Your task to perform on an android device: Add "razer thresher" to the cart on newegg Image 0: 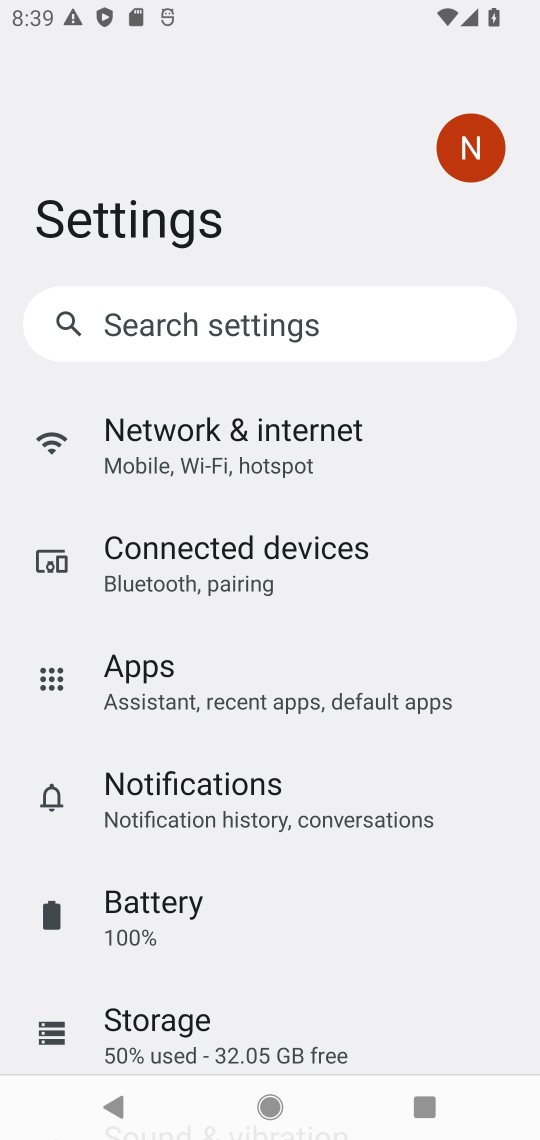
Step 0: press home button
Your task to perform on an android device: Add "razer thresher" to the cart on newegg Image 1: 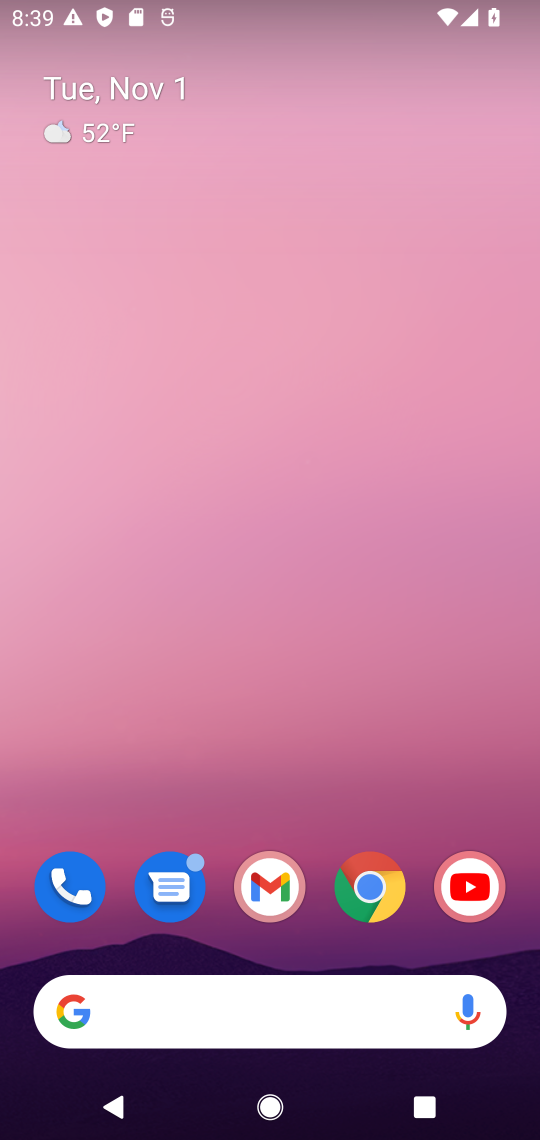
Step 1: drag from (193, 938) to (196, 217)
Your task to perform on an android device: Add "razer thresher" to the cart on newegg Image 2: 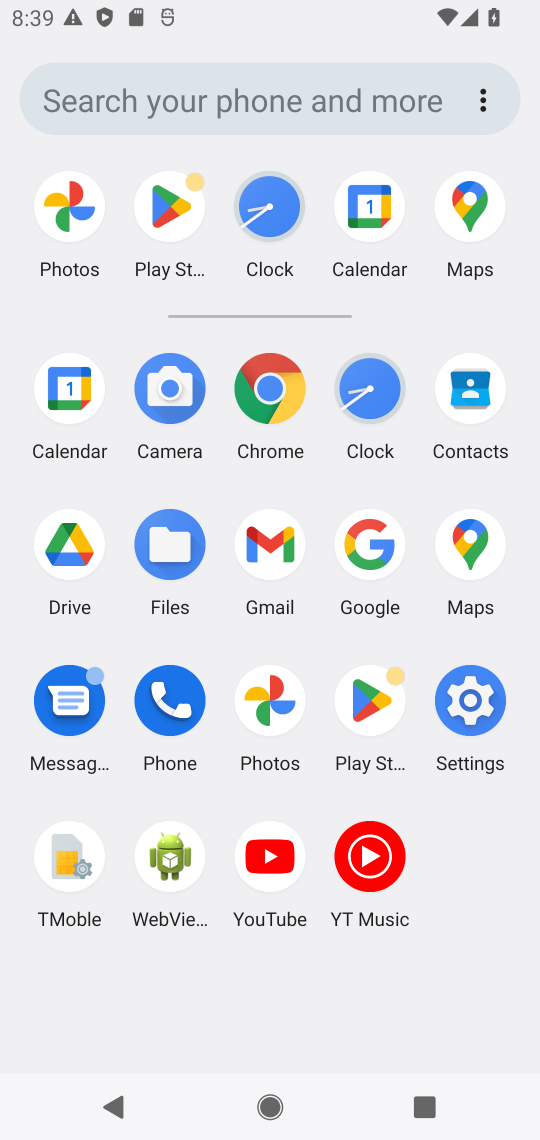
Step 2: click (356, 530)
Your task to perform on an android device: Add "razer thresher" to the cart on newegg Image 3: 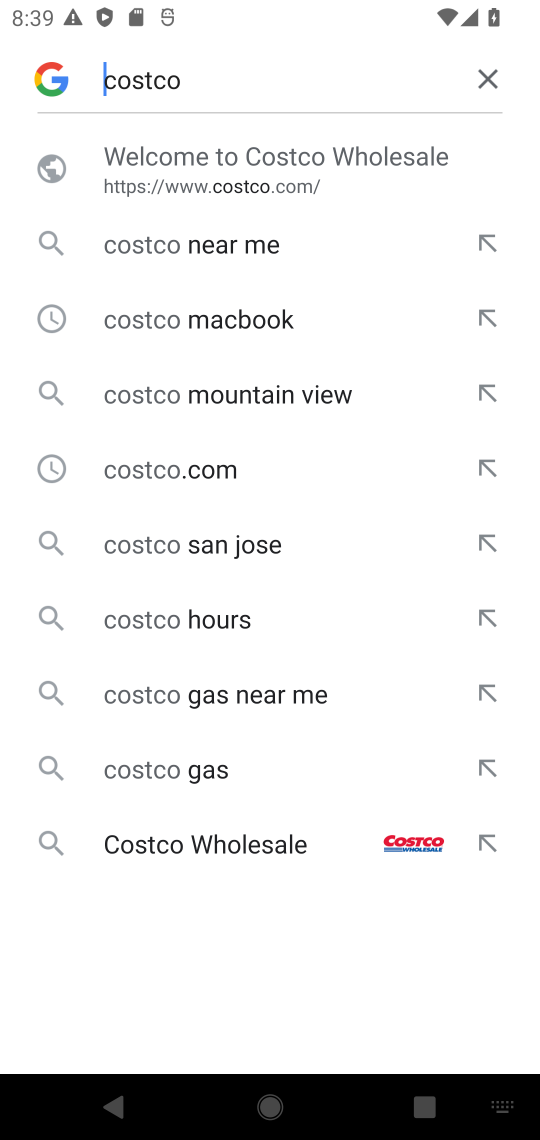
Step 3: click (486, 100)
Your task to perform on an android device: Add "razer thresher" to the cart on newegg Image 4: 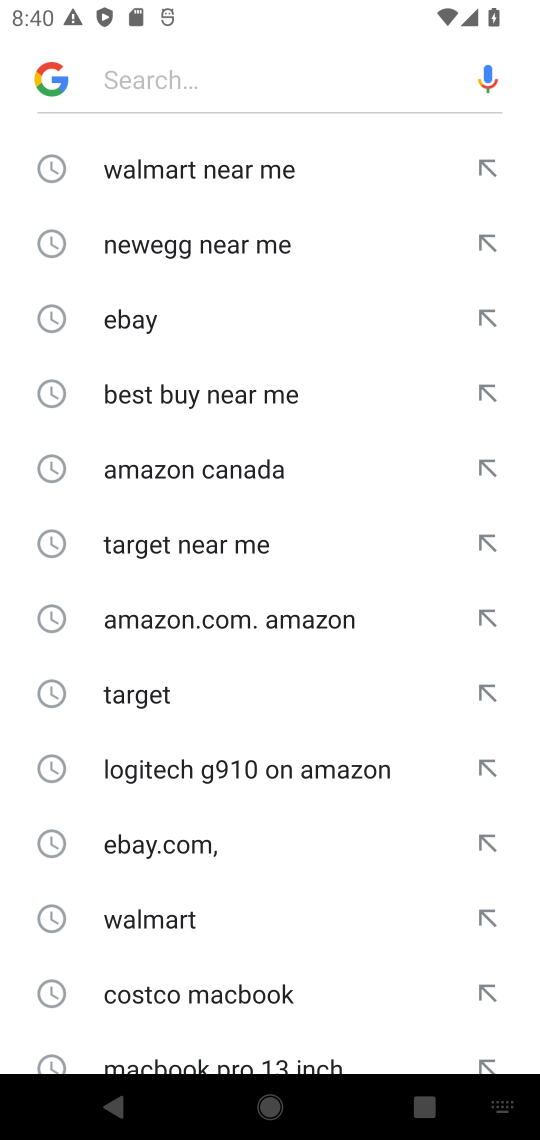
Step 4: click (215, 73)
Your task to perform on an android device: Add "razer thresher" to the cart on newegg Image 5: 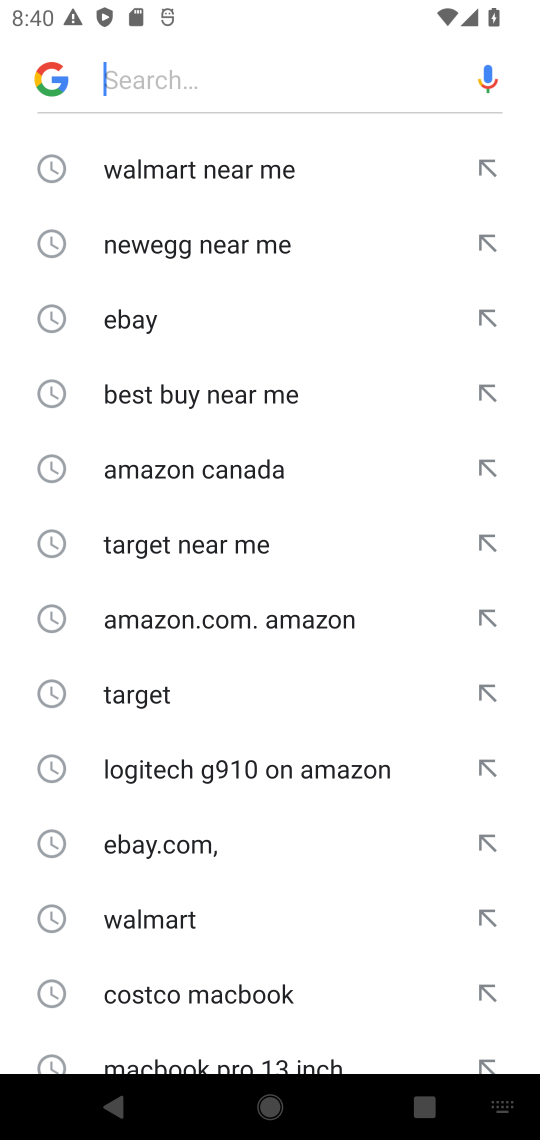
Step 5: type "newegg "
Your task to perform on an android device: Add "razer thresher" to the cart on newegg Image 6: 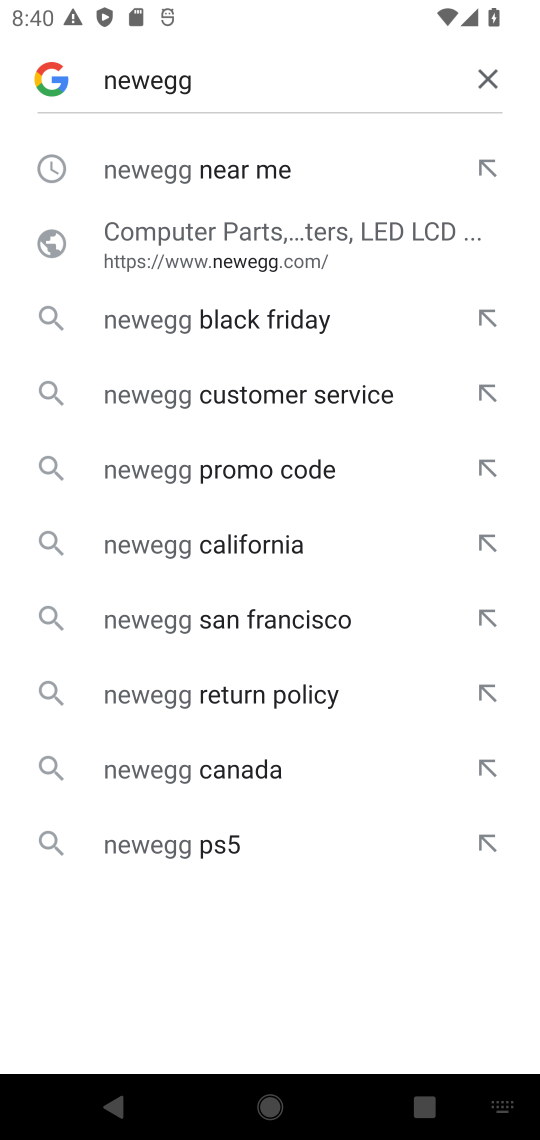
Step 6: click (211, 166)
Your task to perform on an android device: Add "razer thresher" to the cart on newegg Image 7: 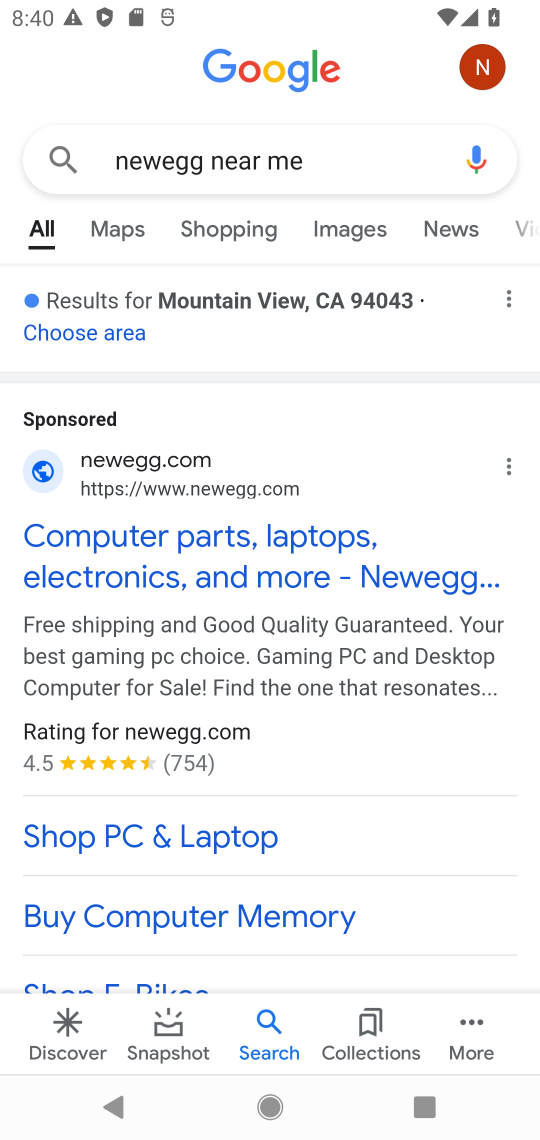
Step 7: drag from (235, 939) to (379, 465)
Your task to perform on an android device: Add "razer thresher" to the cart on newegg Image 8: 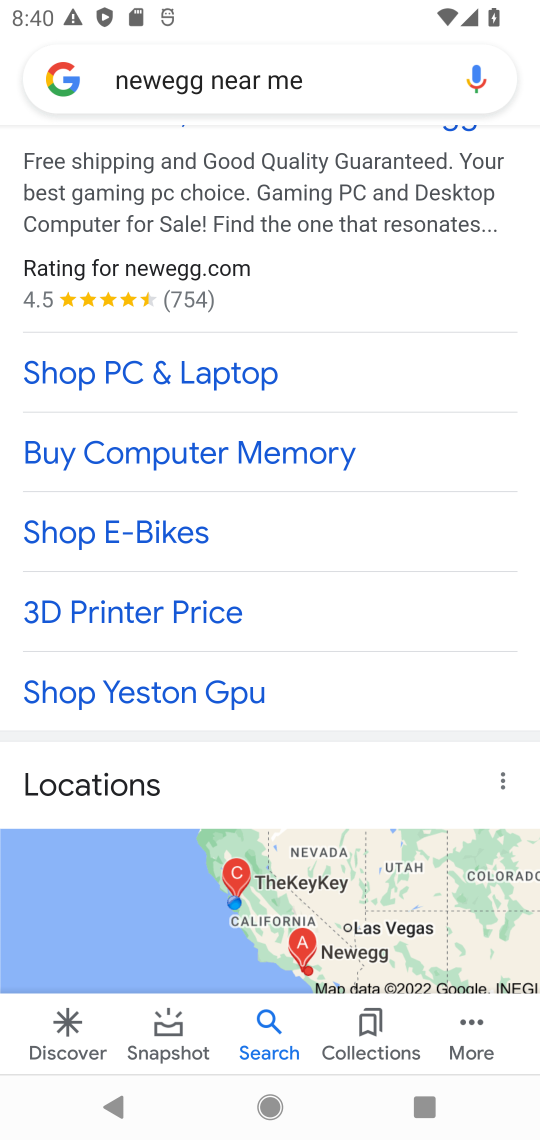
Step 8: drag from (218, 873) to (188, 113)
Your task to perform on an android device: Add "razer thresher" to the cart on newegg Image 9: 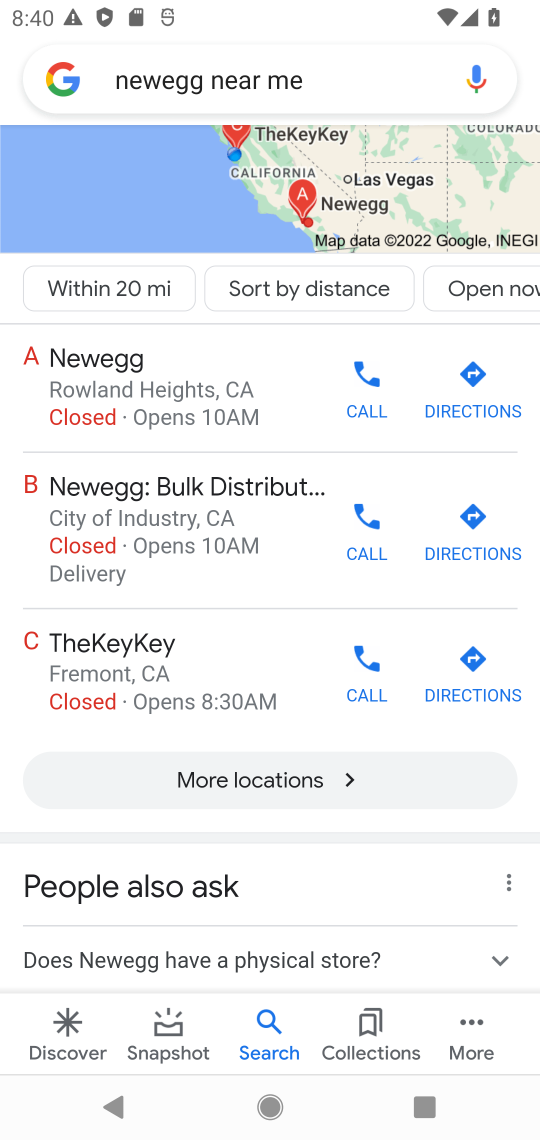
Step 9: drag from (151, 756) to (170, 313)
Your task to perform on an android device: Add "razer thresher" to the cart on newegg Image 10: 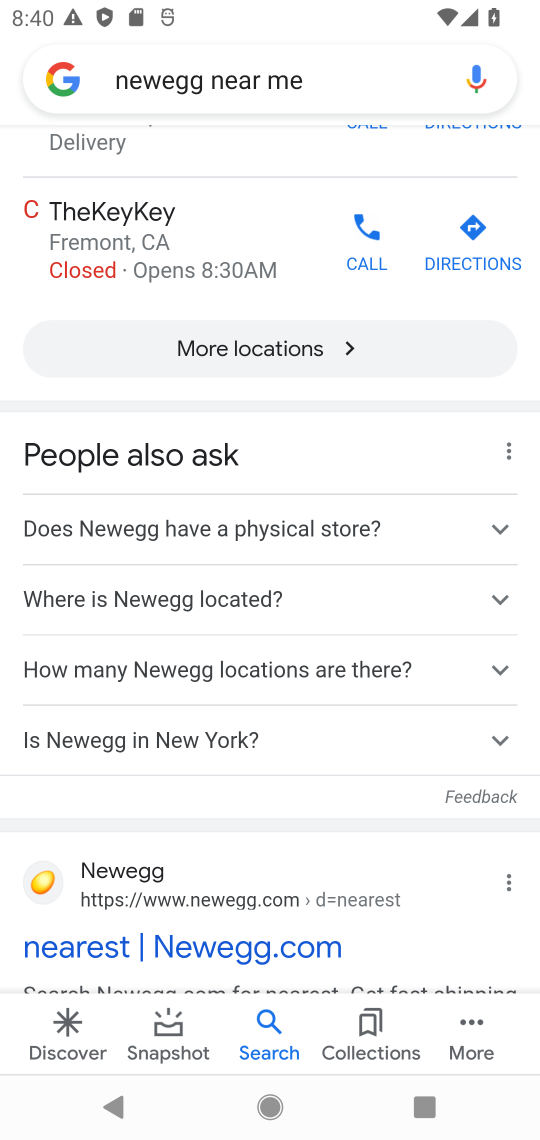
Step 10: click (32, 882)
Your task to perform on an android device: Add "razer thresher" to the cart on newegg Image 11: 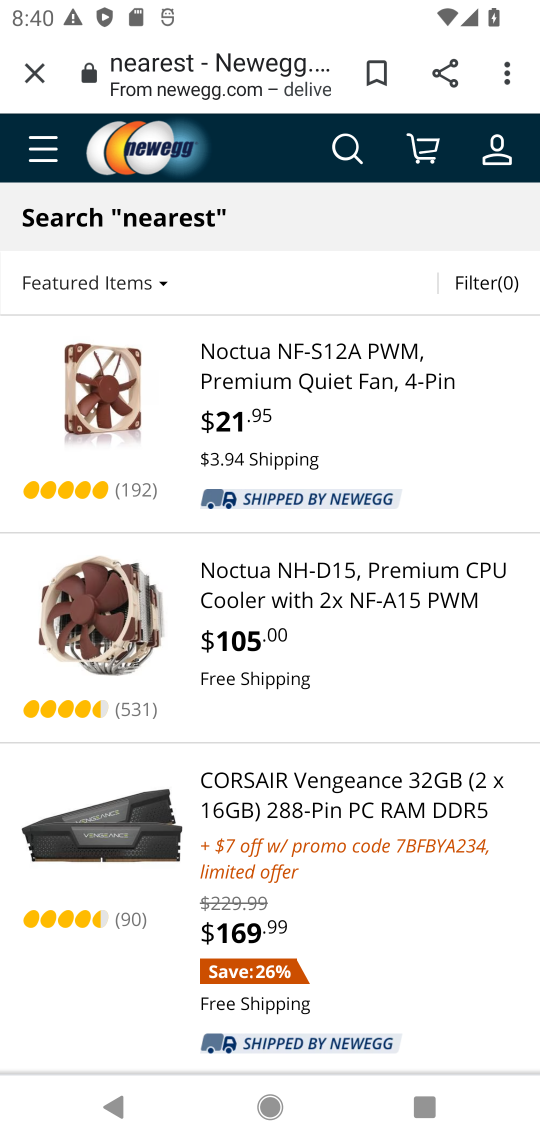
Step 11: click (352, 150)
Your task to perform on an android device: Add "razer thresher" to the cart on newegg Image 12: 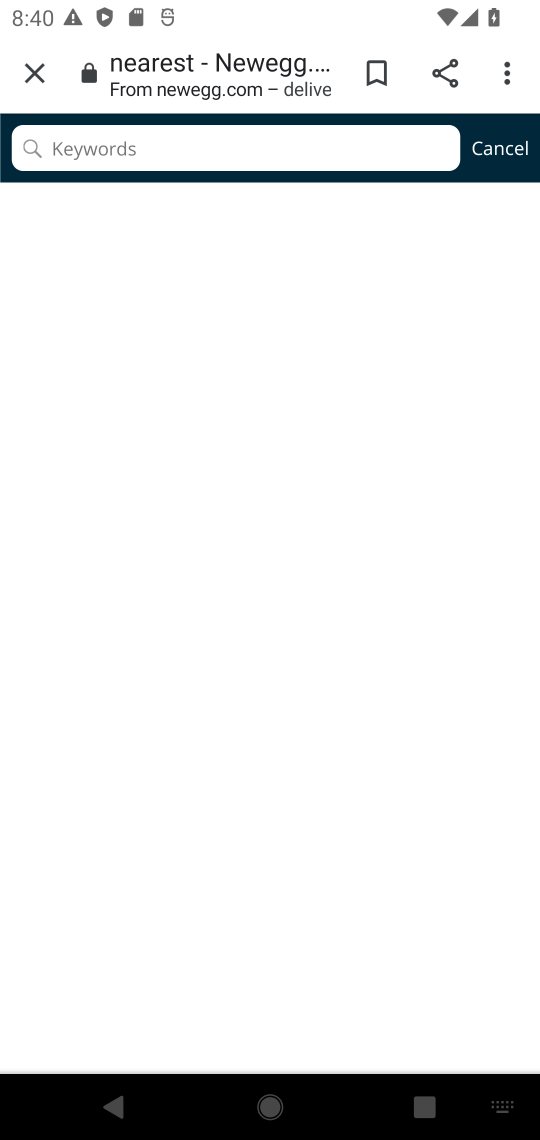
Step 12: click (195, 144)
Your task to perform on an android device: Add "razer thresher" to the cart on newegg Image 13: 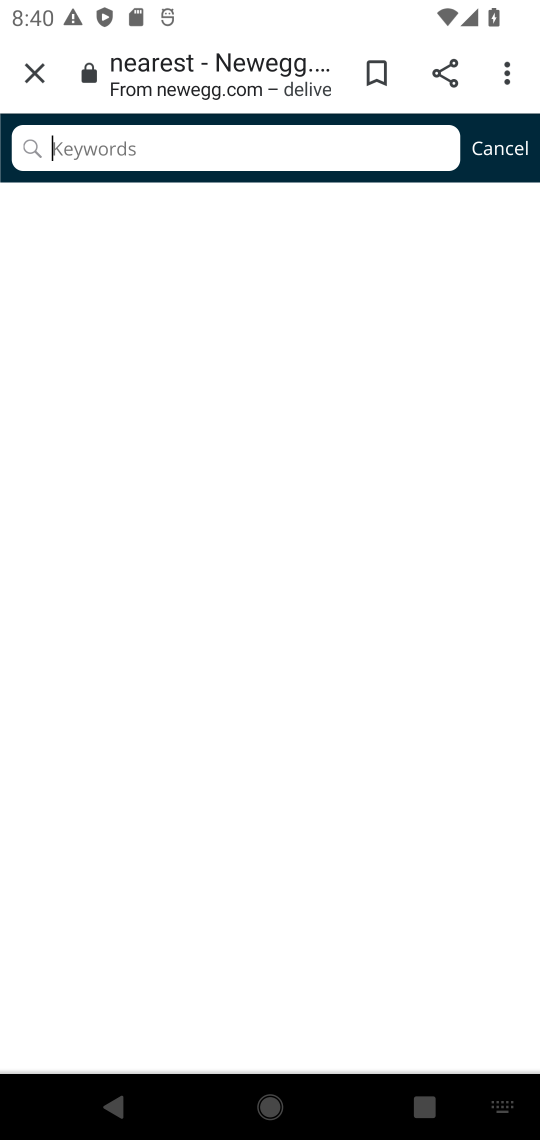
Step 13: type "razer thresher" "
Your task to perform on an android device: Add "razer thresher" to the cart on newegg Image 14: 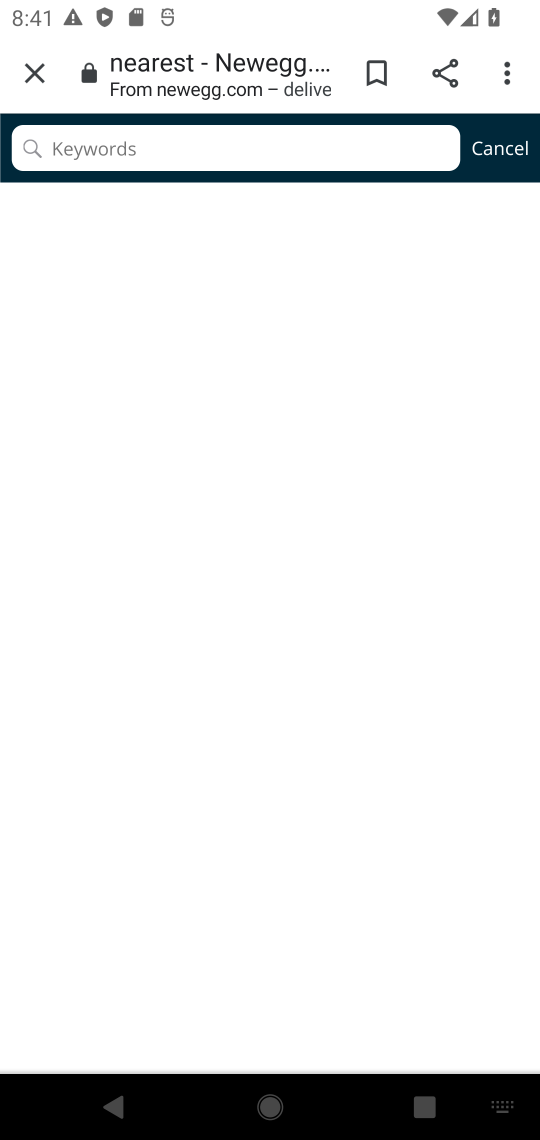
Step 14: click (267, 143)
Your task to perform on an android device: Add "razer thresher" to the cart on newegg Image 15: 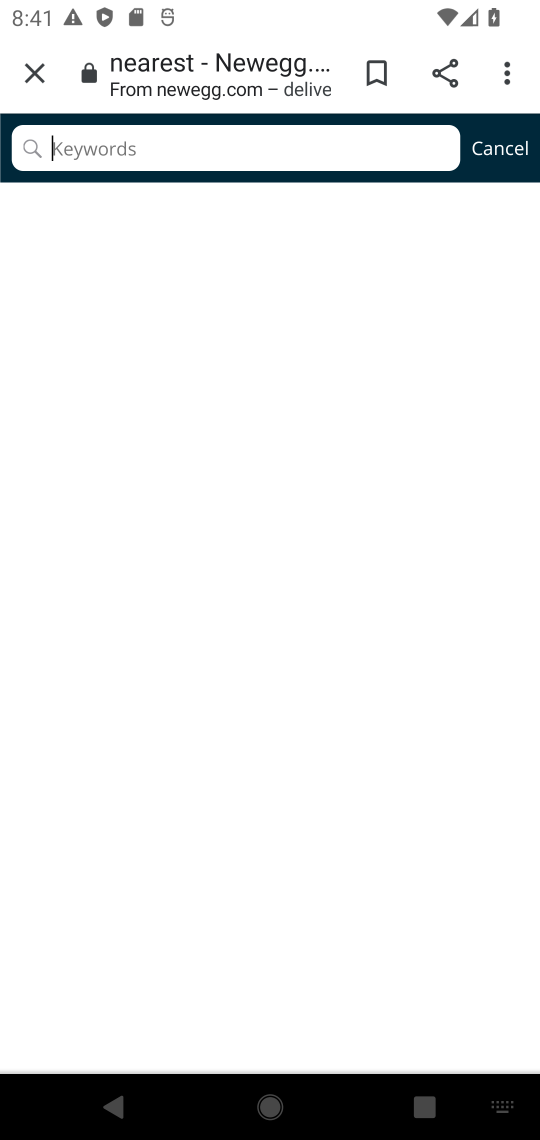
Step 15: type "razer thresher" "
Your task to perform on an android device: Add "razer thresher" to the cart on newegg Image 16: 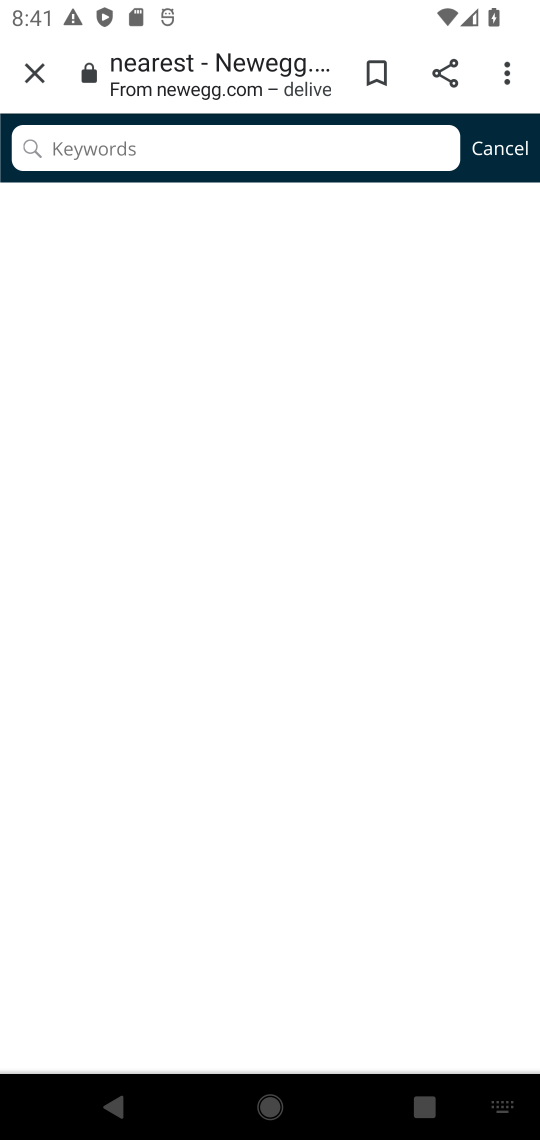
Step 16: click (116, 140)
Your task to perform on an android device: Add "razer thresher" to the cart on newegg Image 17: 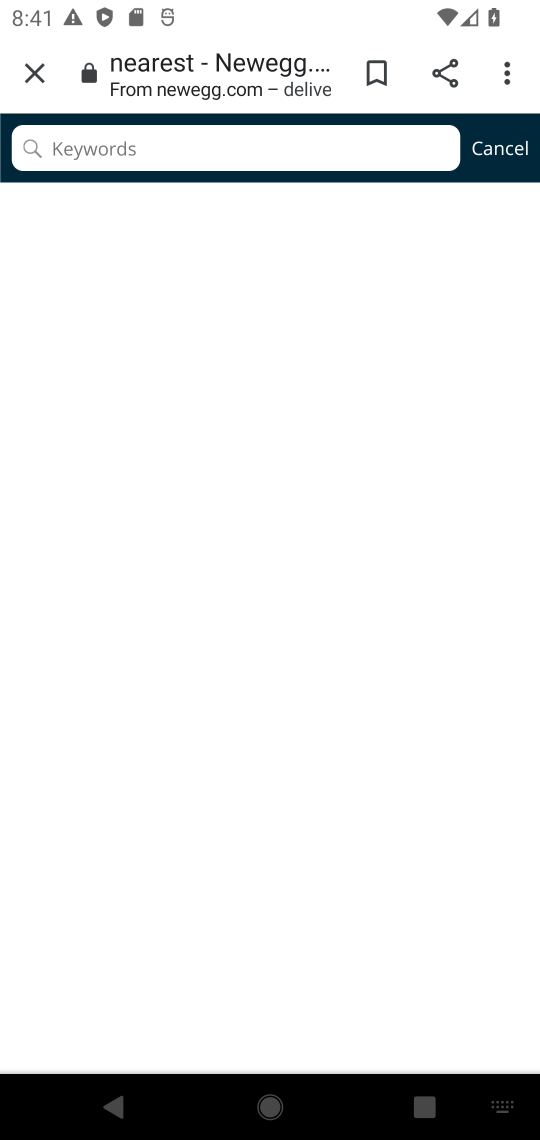
Step 17: type "razer thresher "
Your task to perform on an android device: Add "razer thresher" to the cart on newegg Image 18: 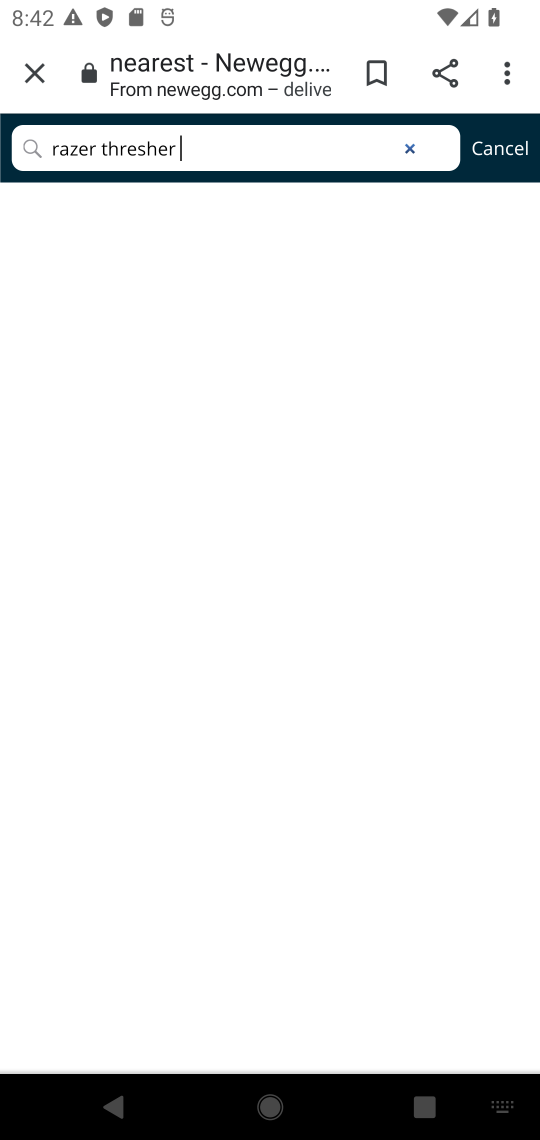
Step 18: task complete